Your task to perform on an android device: change the clock display to digital Image 0: 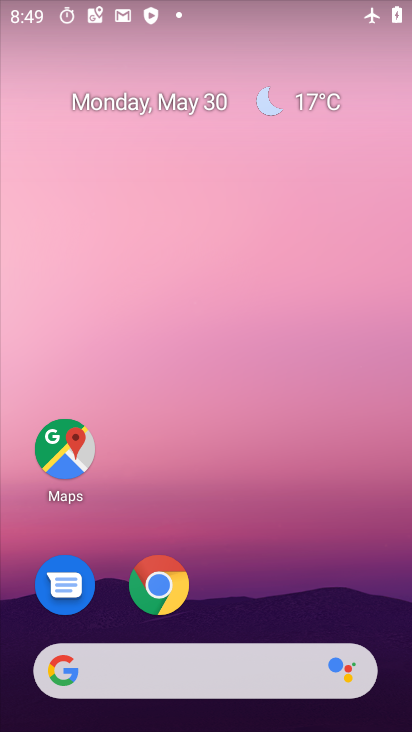
Step 0: drag from (211, 601) to (295, 192)
Your task to perform on an android device: change the clock display to digital Image 1: 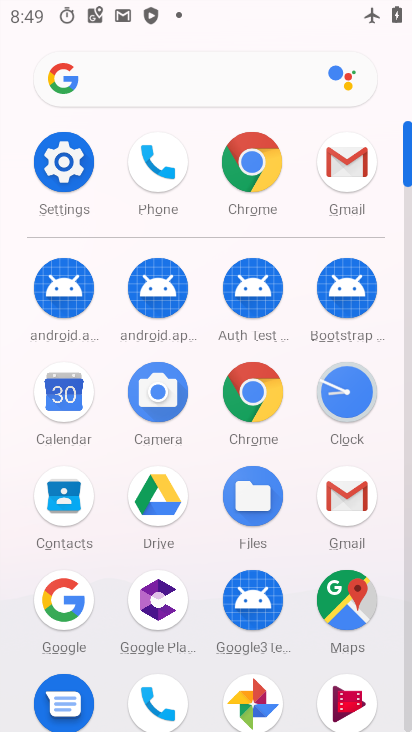
Step 1: click (338, 398)
Your task to perform on an android device: change the clock display to digital Image 2: 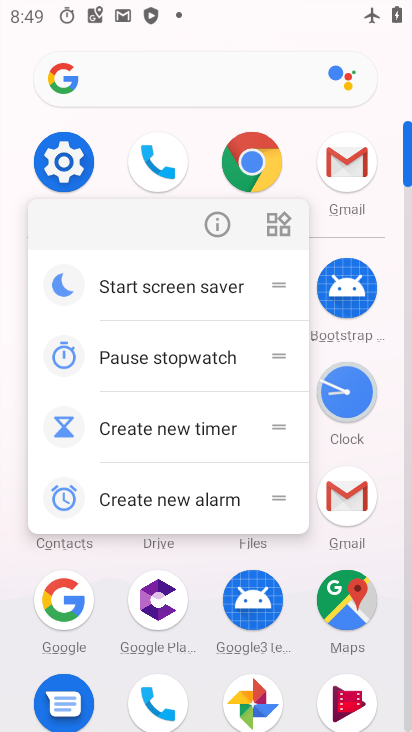
Step 2: click (218, 224)
Your task to perform on an android device: change the clock display to digital Image 3: 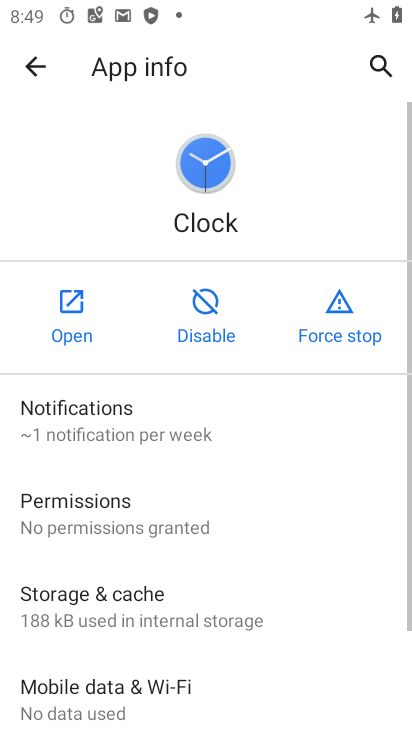
Step 3: click (70, 350)
Your task to perform on an android device: change the clock display to digital Image 4: 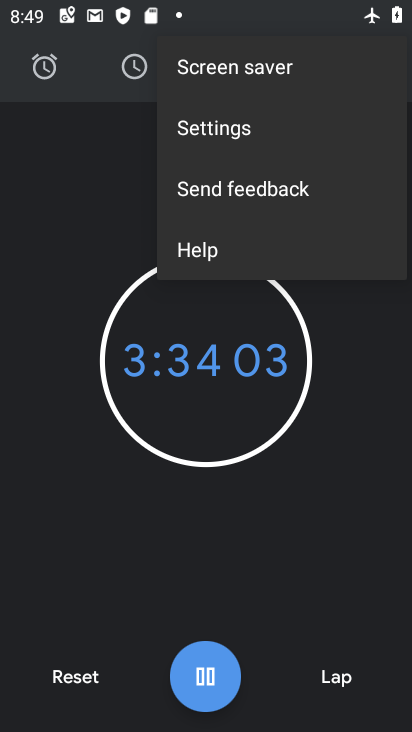
Step 4: click (251, 142)
Your task to perform on an android device: change the clock display to digital Image 5: 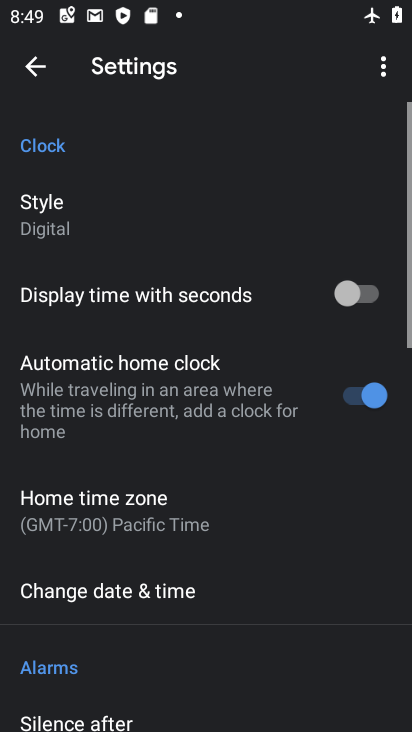
Step 5: click (128, 196)
Your task to perform on an android device: change the clock display to digital Image 6: 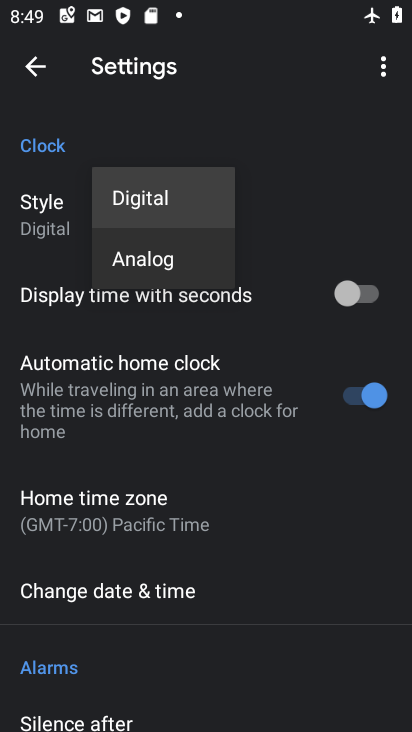
Step 6: click (167, 279)
Your task to perform on an android device: change the clock display to digital Image 7: 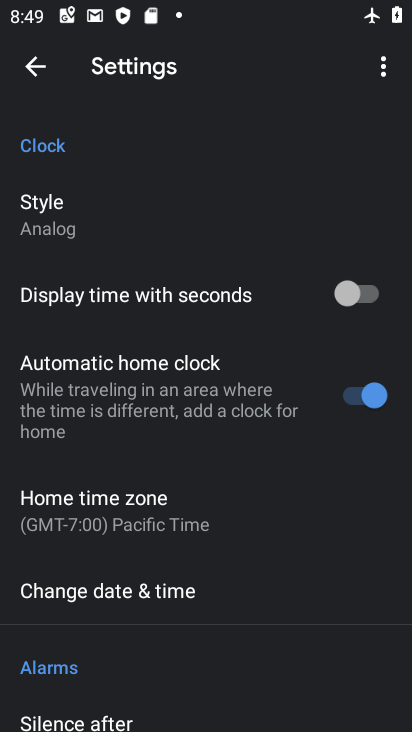
Step 7: click (143, 217)
Your task to perform on an android device: change the clock display to digital Image 8: 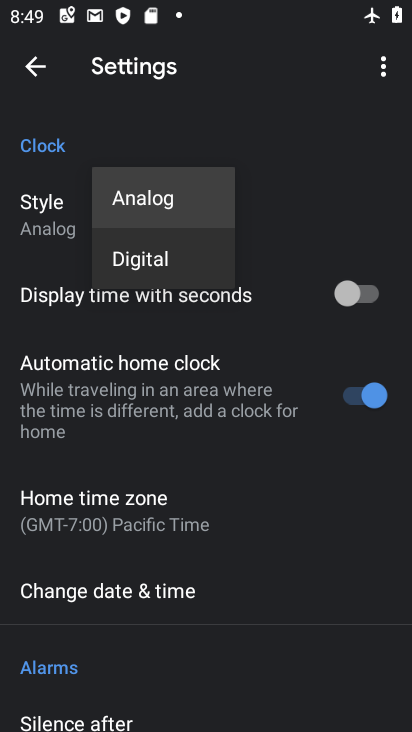
Step 8: click (142, 215)
Your task to perform on an android device: change the clock display to digital Image 9: 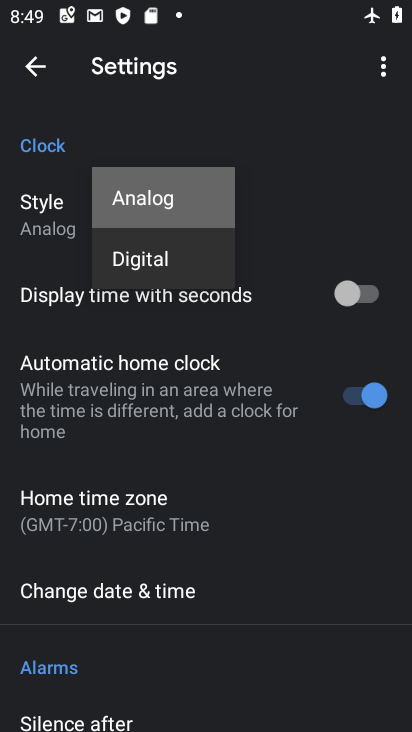
Step 9: click (32, 236)
Your task to perform on an android device: change the clock display to digital Image 10: 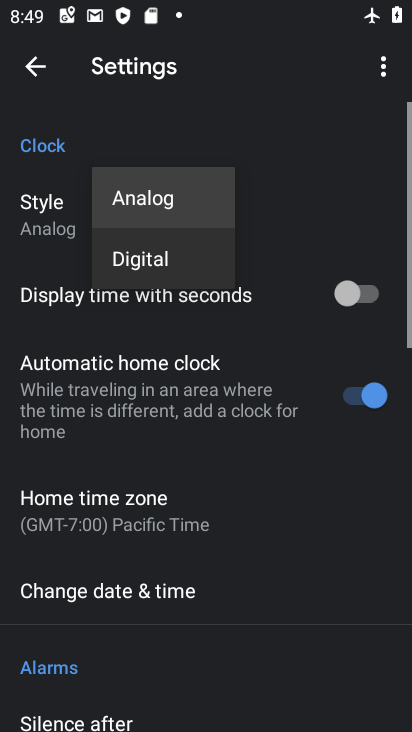
Step 10: click (75, 210)
Your task to perform on an android device: change the clock display to digital Image 11: 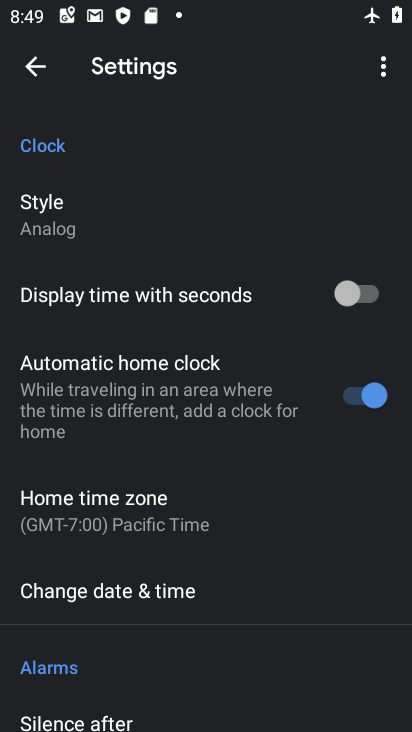
Step 11: click (149, 258)
Your task to perform on an android device: change the clock display to digital Image 12: 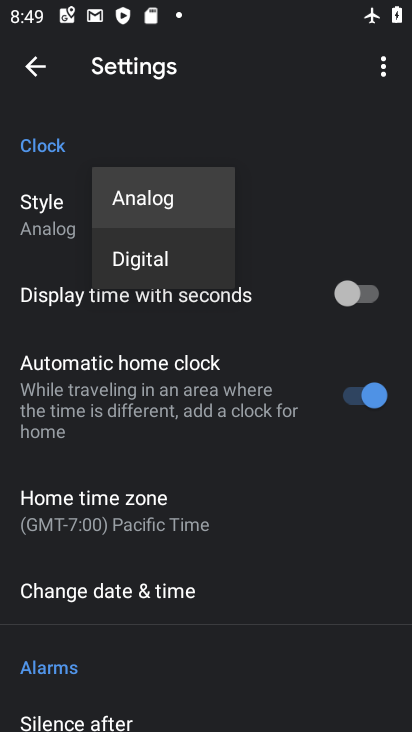
Step 12: click (143, 268)
Your task to perform on an android device: change the clock display to digital Image 13: 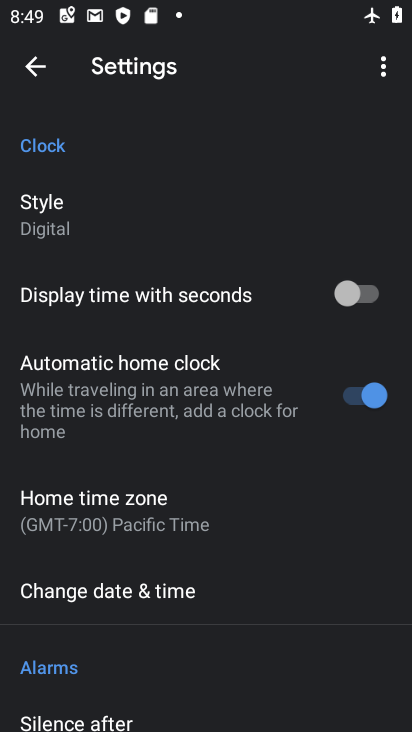
Step 13: task complete